Your task to perform on an android device: open app "Airtel Thanks" Image 0: 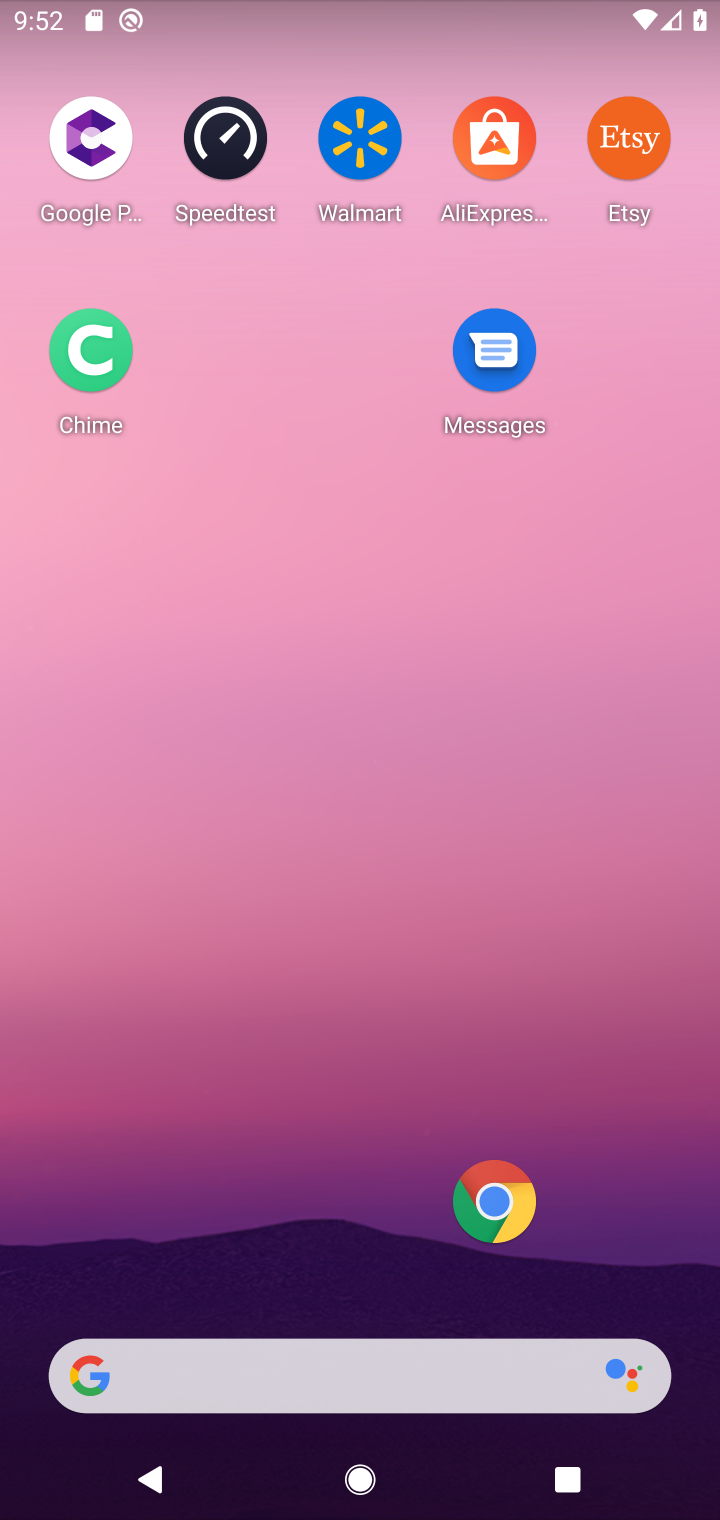
Step 0: drag from (358, 981) to (343, 237)
Your task to perform on an android device: open app "Airtel Thanks" Image 1: 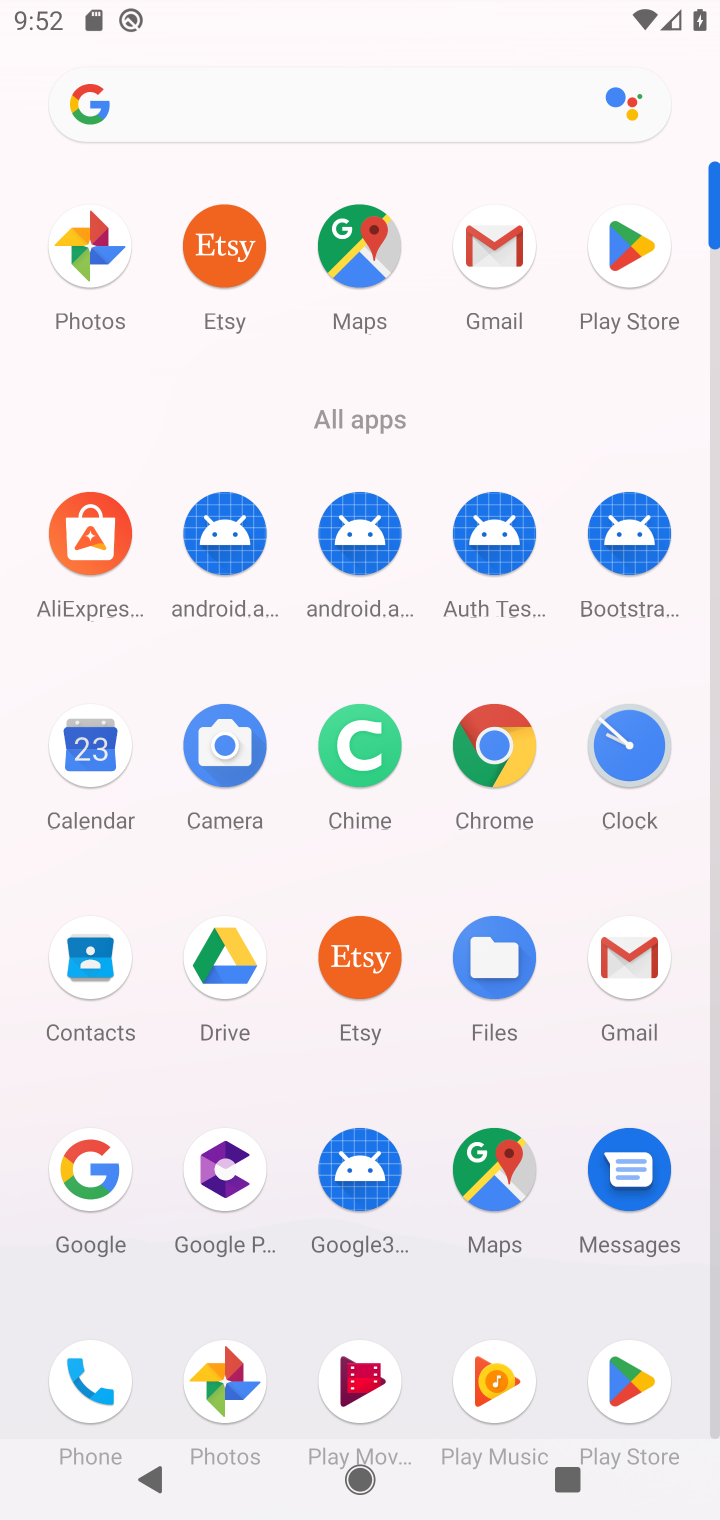
Step 1: click (605, 255)
Your task to perform on an android device: open app "Airtel Thanks" Image 2: 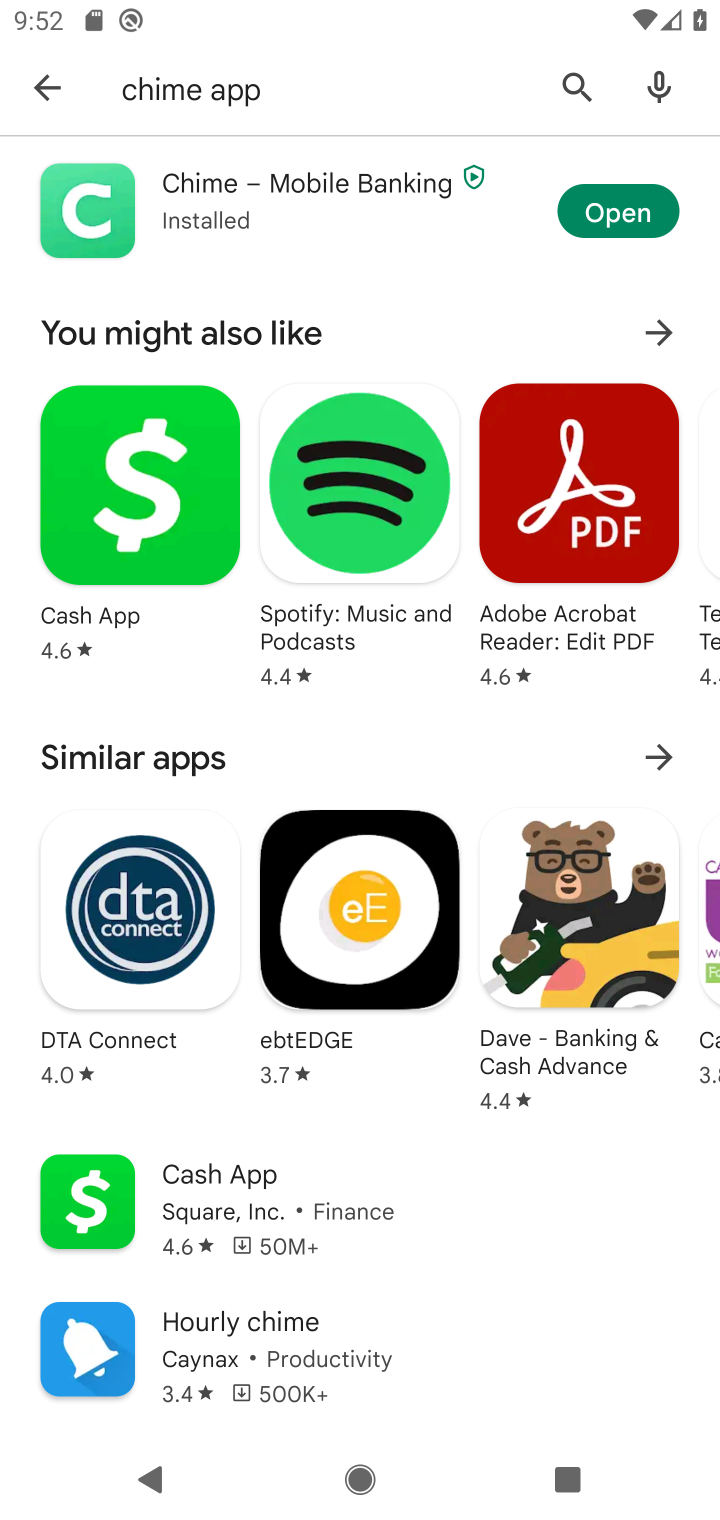
Step 2: click (22, 78)
Your task to perform on an android device: open app "Airtel Thanks" Image 3: 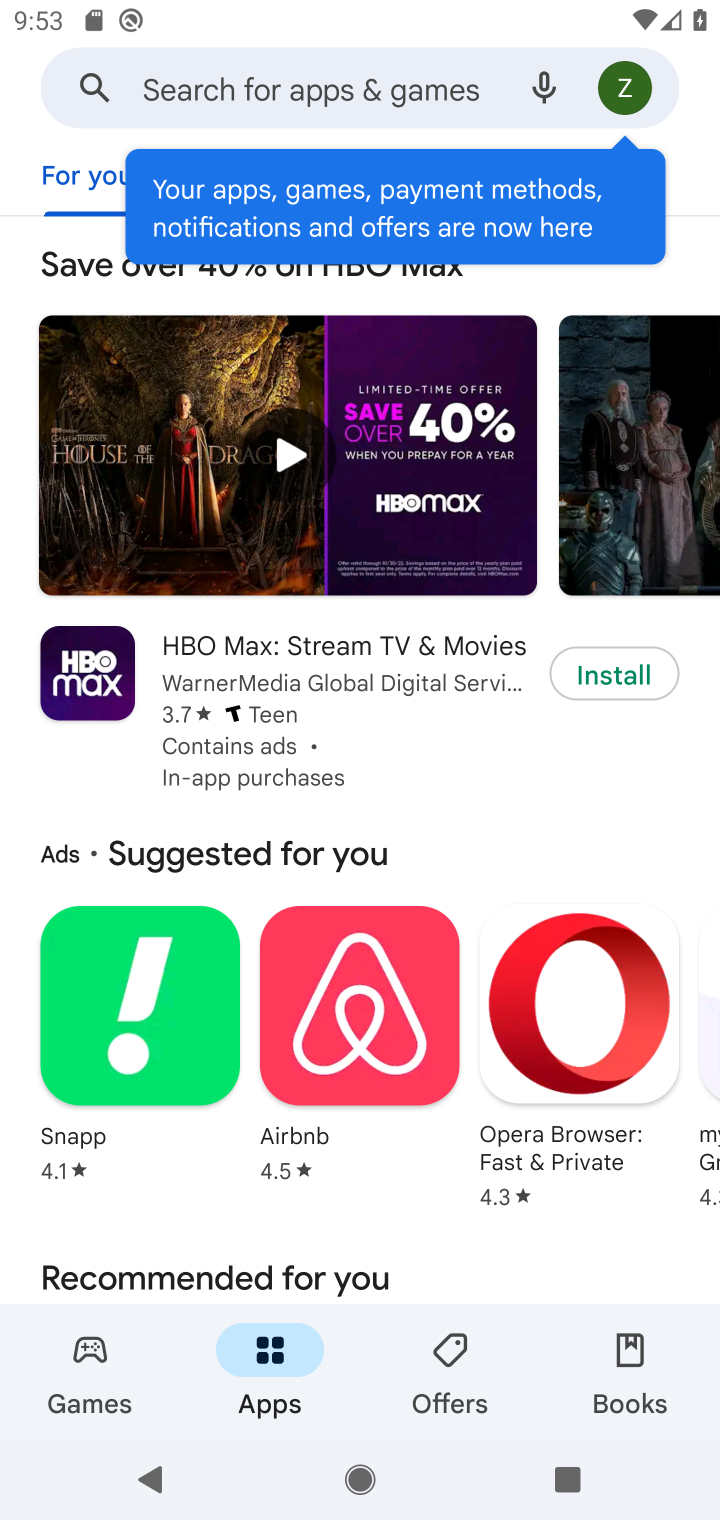
Step 3: click (392, 82)
Your task to perform on an android device: open app "Airtel Thanks" Image 4: 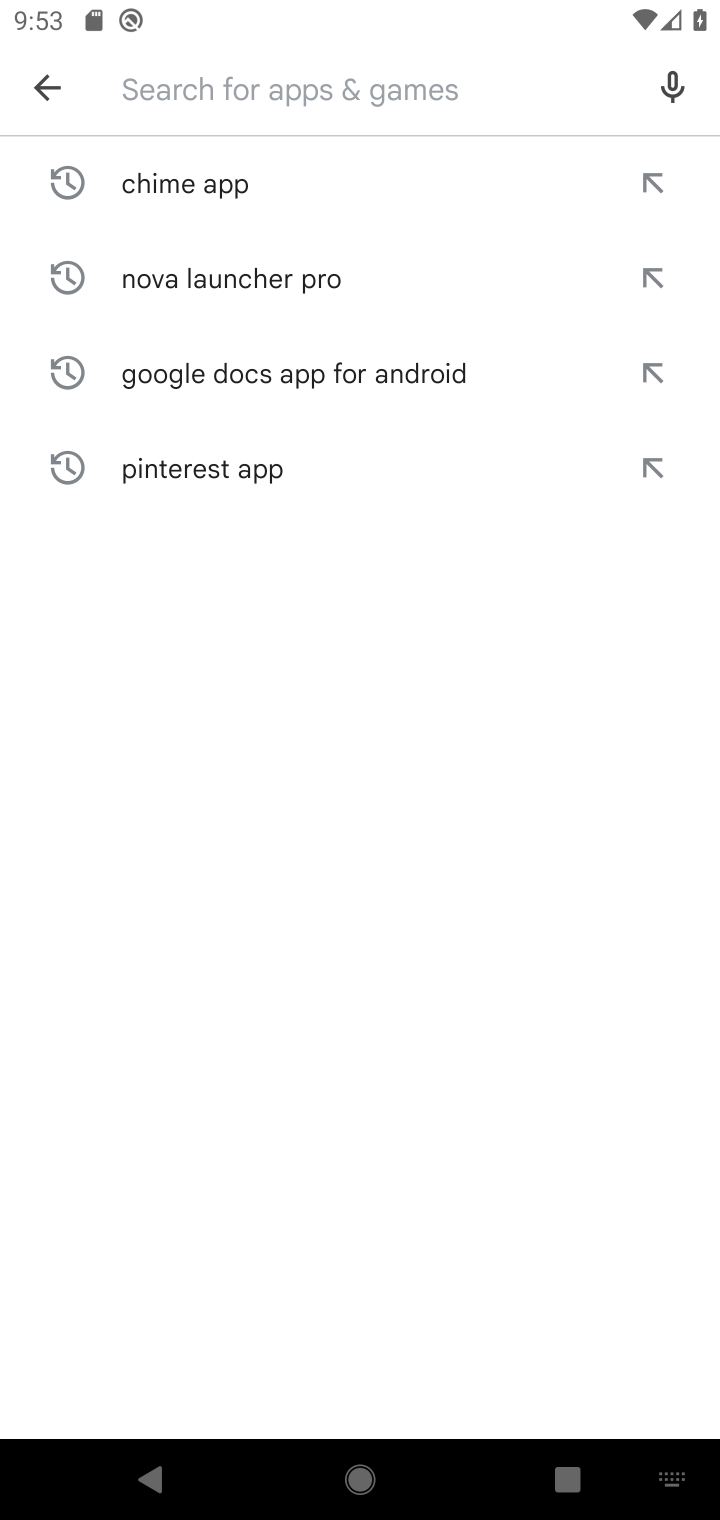
Step 4: type "Airtel Thanks "
Your task to perform on an android device: open app "Airtel Thanks" Image 5: 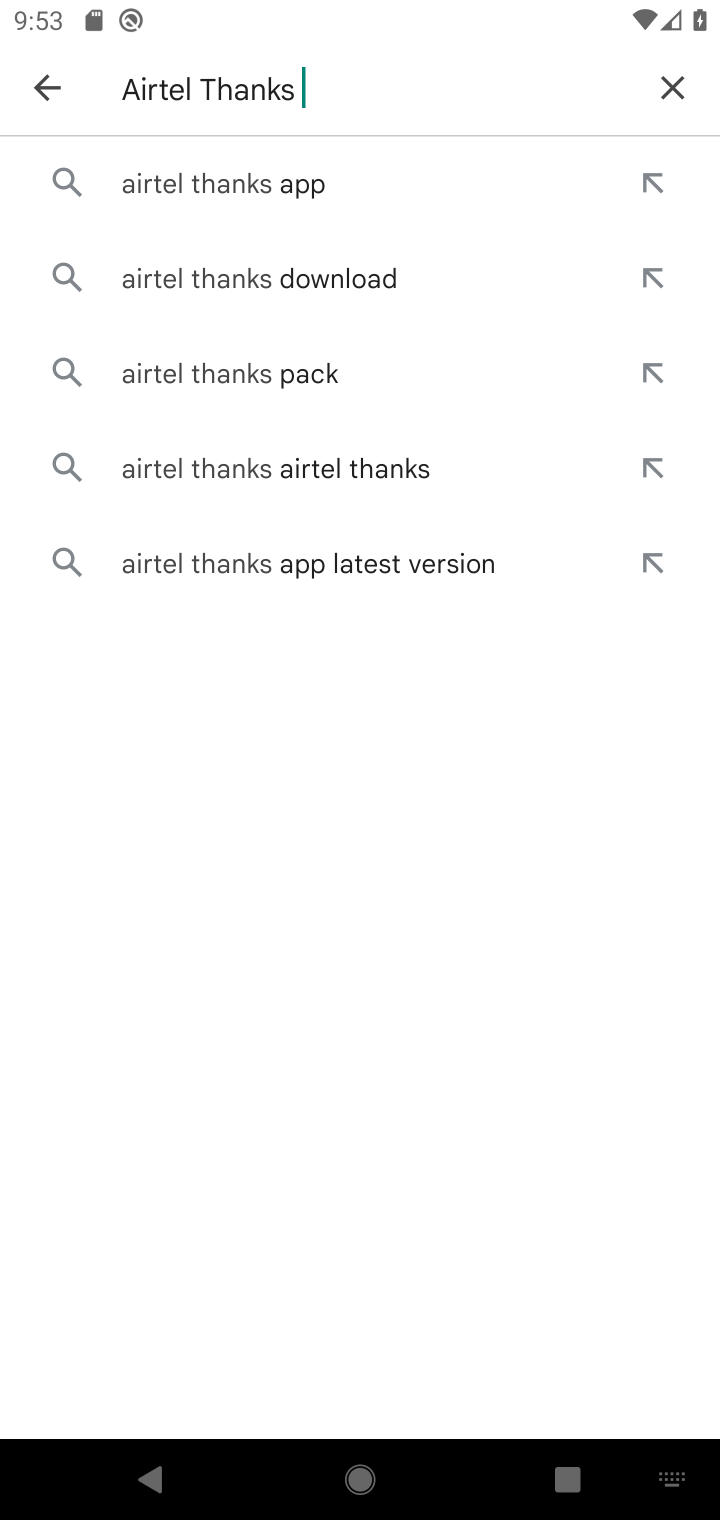
Step 5: click (232, 176)
Your task to perform on an android device: open app "Airtel Thanks" Image 6: 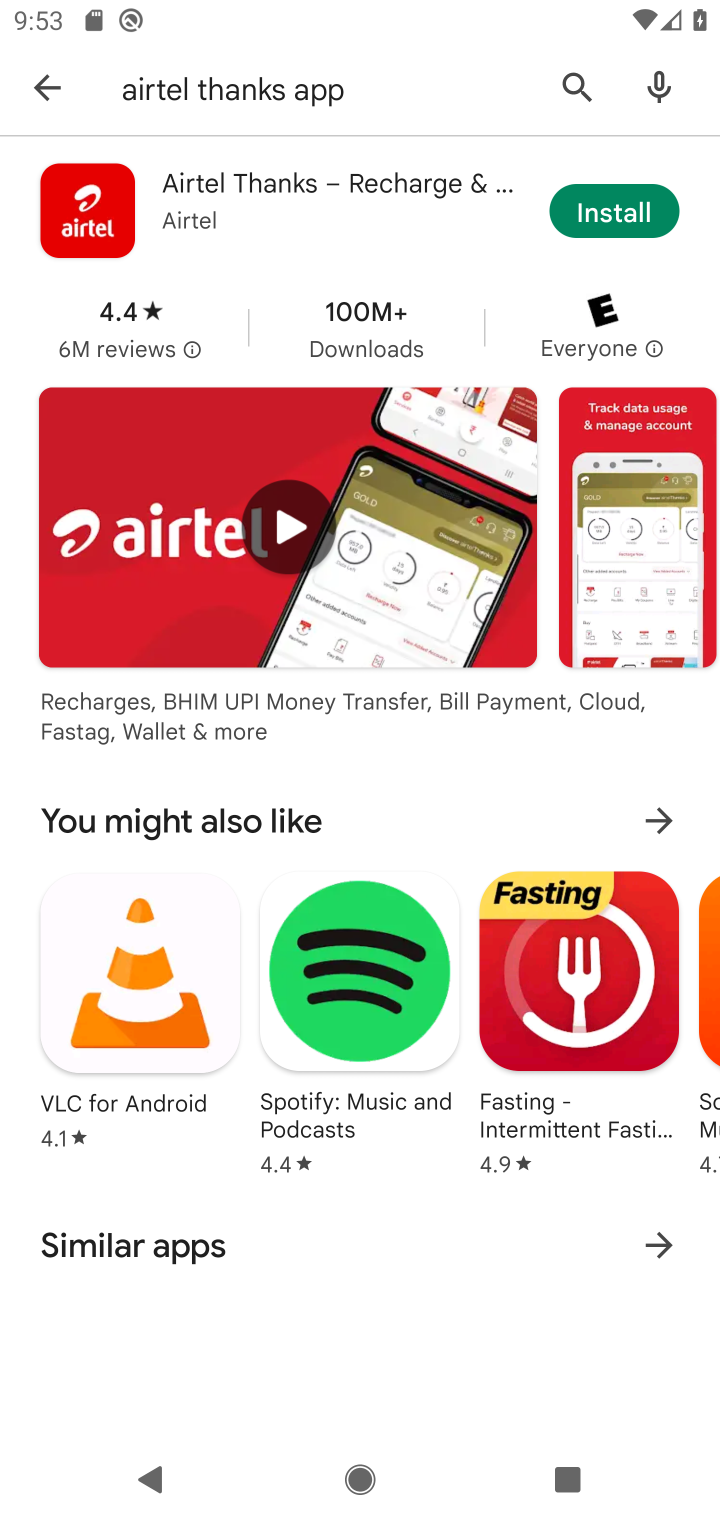
Step 6: click (621, 213)
Your task to perform on an android device: open app "Airtel Thanks" Image 7: 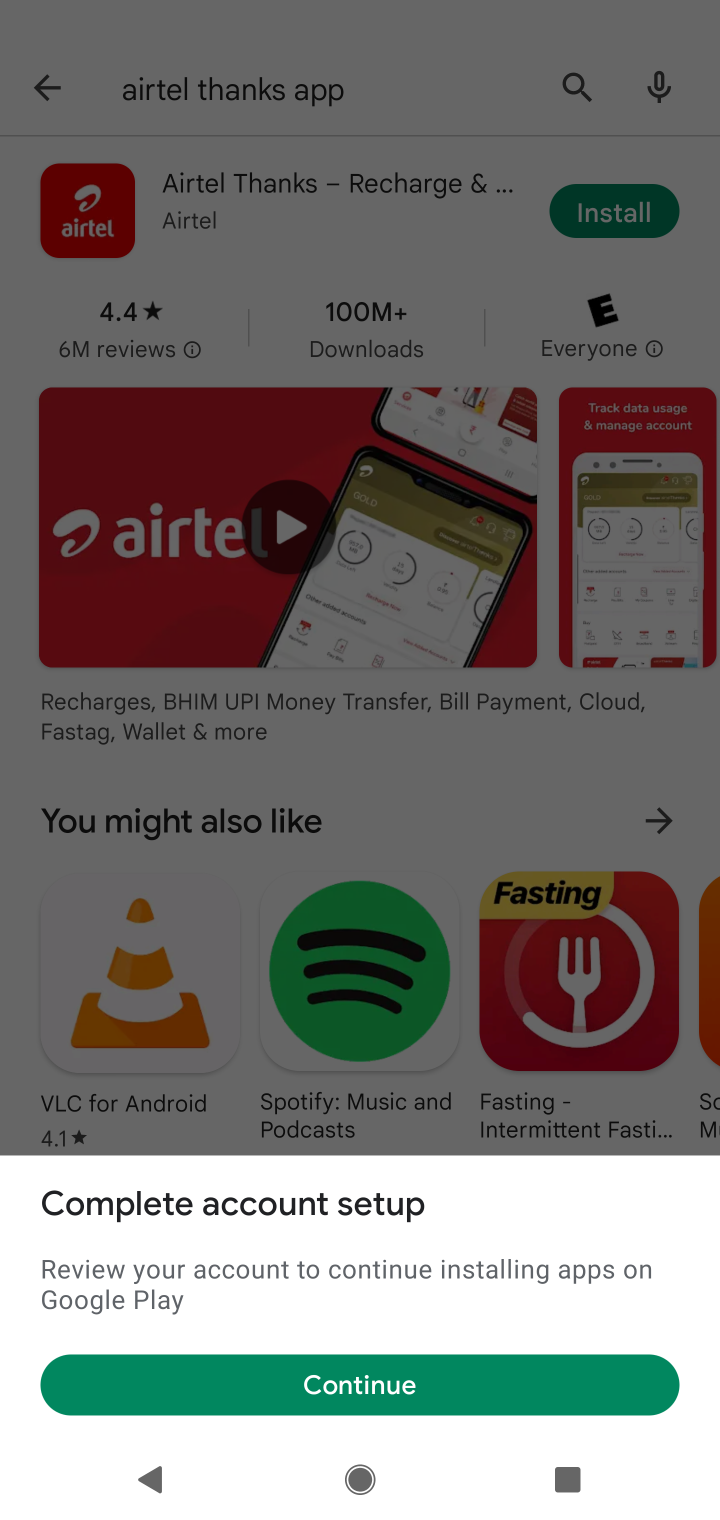
Step 7: task complete